Your task to perform on an android device: Go to display settings Image 0: 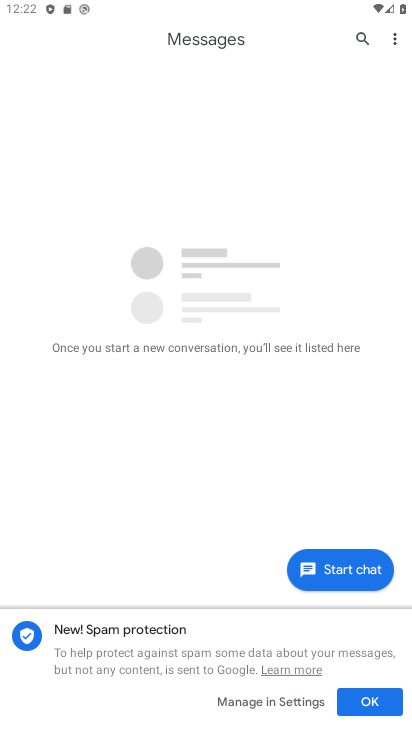
Step 0: drag from (248, 655) to (258, 81)
Your task to perform on an android device: Go to display settings Image 1: 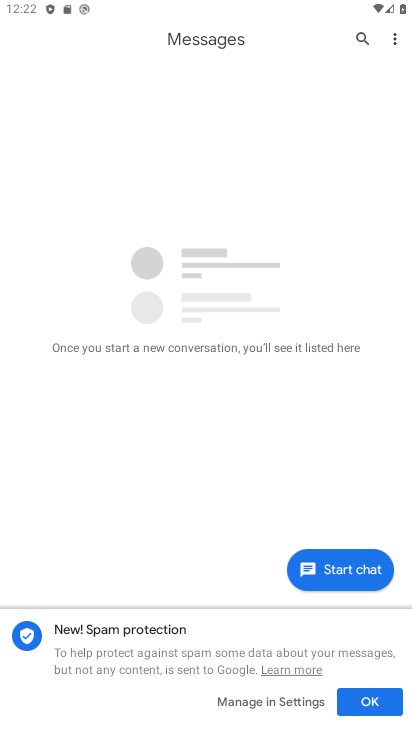
Step 1: press home button
Your task to perform on an android device: Go to display settings Image 2: 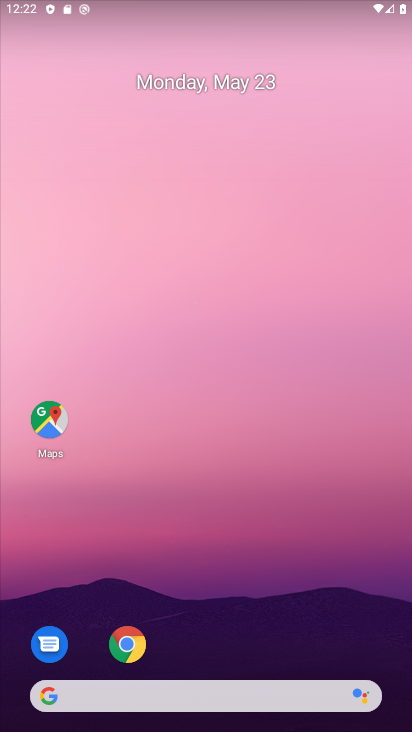
Step 2: drag from (257, 654) to (250, 26)
Your task to perform on an android device: Go to display settings Image 3: 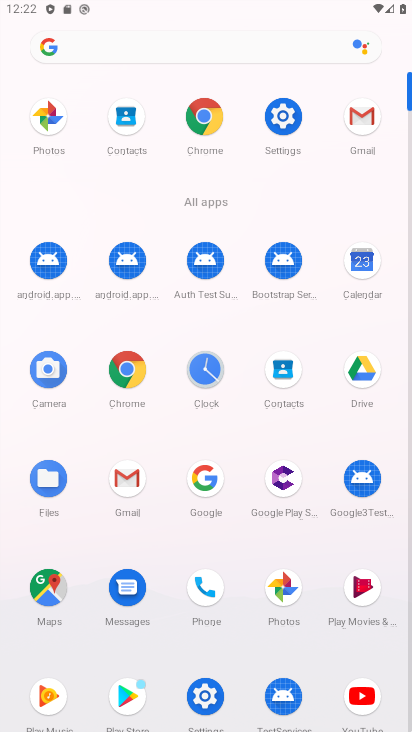
Step 3: click (290, 116)
Your task to perform on an android device: Go to display settings Image 4: 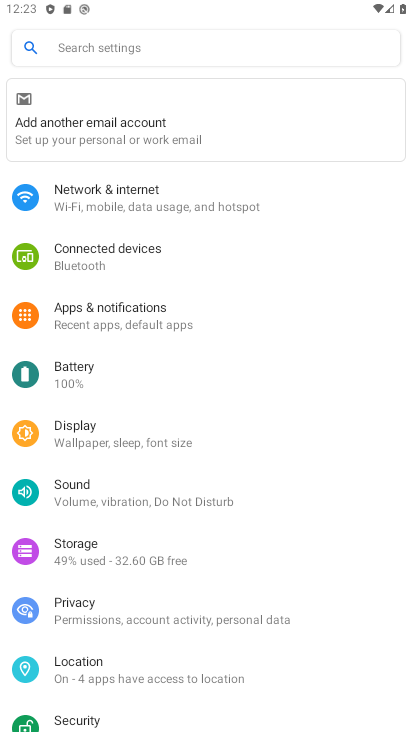
Step 4: click (94, 435)
Your task to perform on an android device: Go to display settings Image 5: 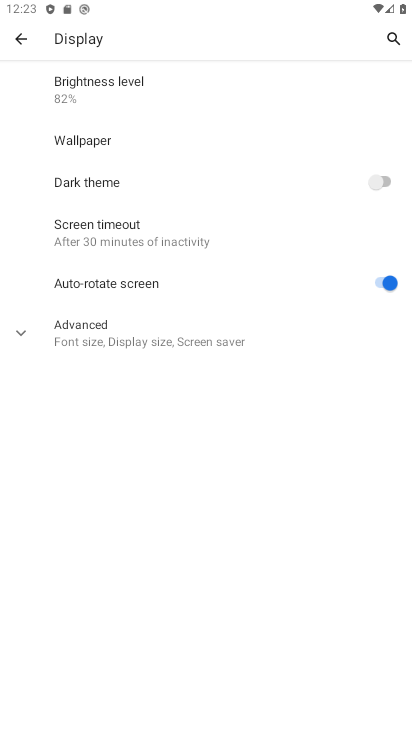
Step 5: task complete